Your task to perform on an android device: Open Youtube and go to "Your channel" Image 0: 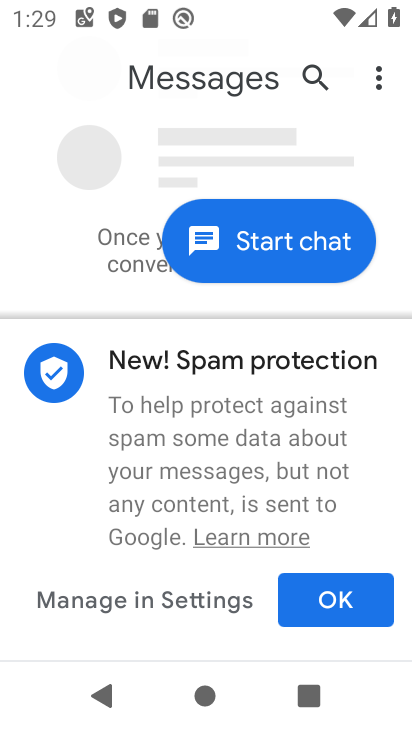
Step 0: press home button
Your task to perform on an android device: Open Youtube and go to "Your channel" Image 1: 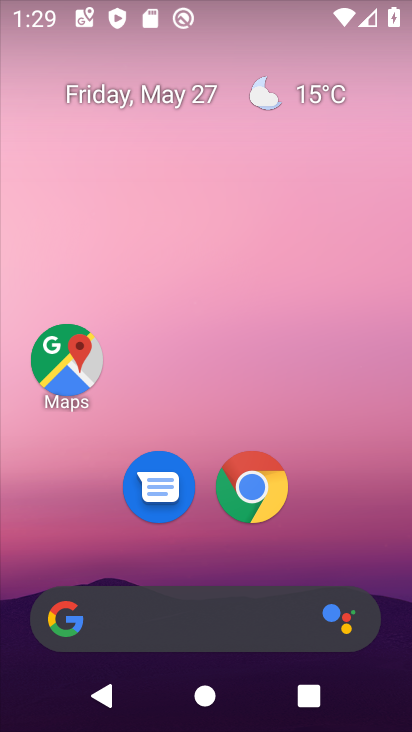
Step 1: drag from (197, 557) to (267, 1)
Your task to perform on an android device: Open Youtube and go to "Your channel" Image 2: 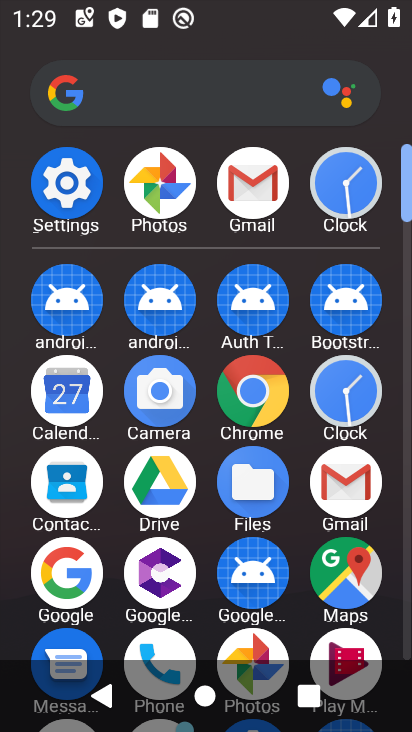
Step 2: drag from (204, 608) to (260, 118)
Your task to perform on an android device: Open Youtube and go to "Your channel" Image 3: 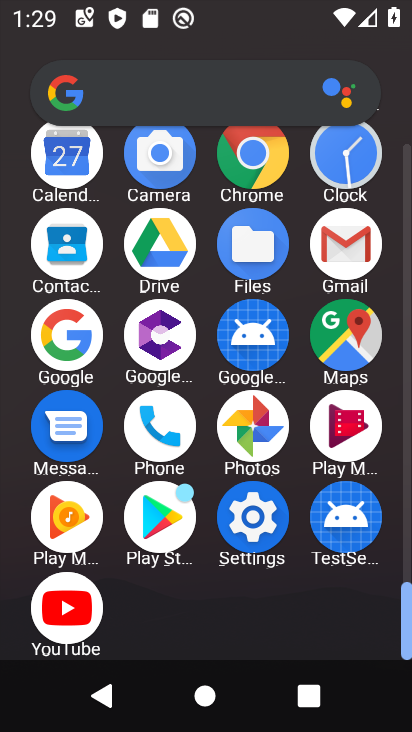
Step 3: click (61, 624)
Your task to perform on an android device: Open Youtube and go to "Your channel" Image 4: 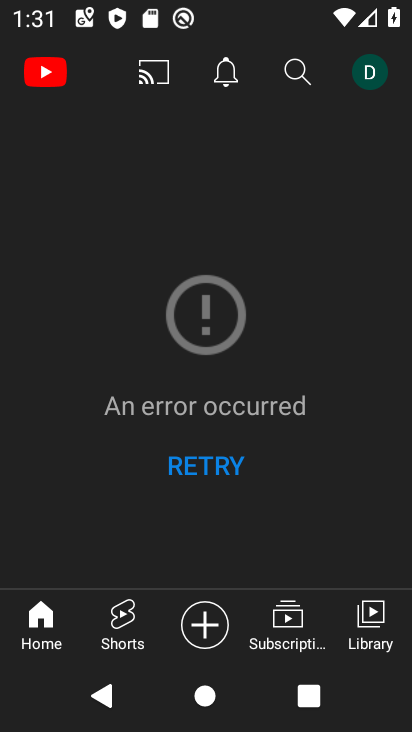
Step 4: task complete